Your task to perform on an android device: Go to CNN.com Image 0: 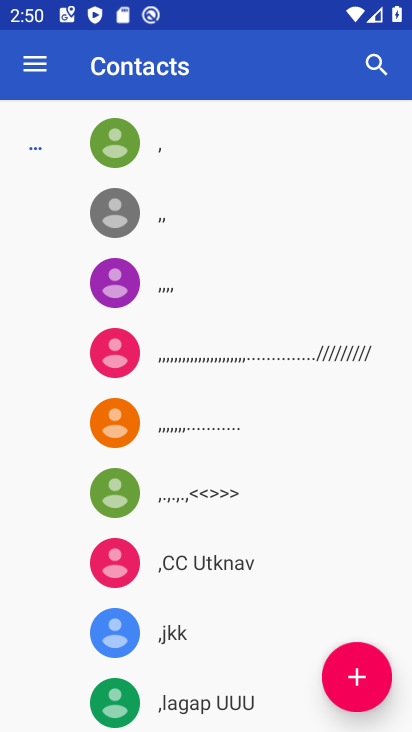
Step 0: press home button
Your task to perform on an android device: Go to CNN.com Image 1: 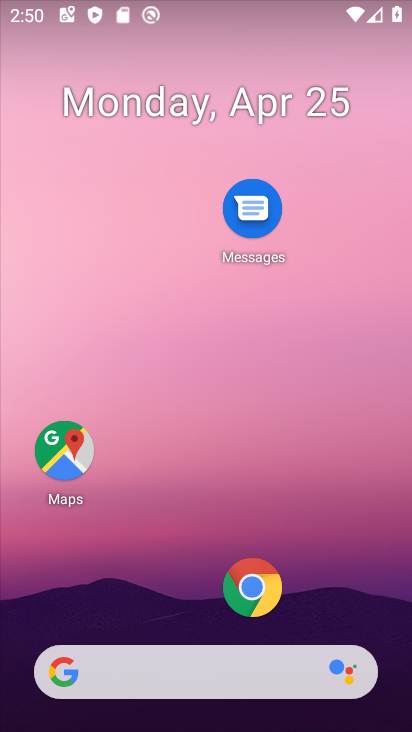
Step 1: click (254, 594)
Your task to perform on an android device: Go to CNN.com Image 2: 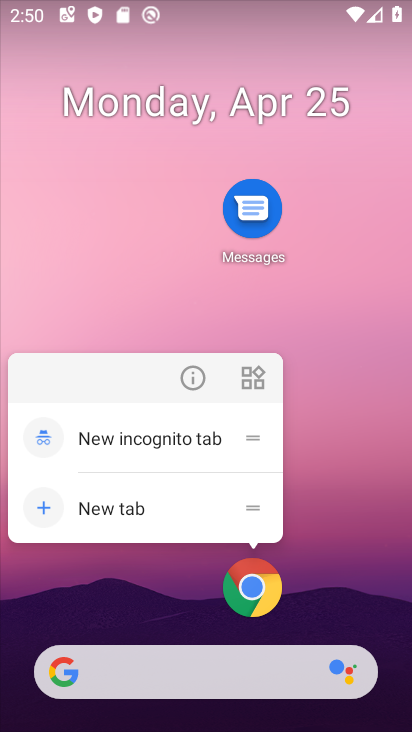
Step 2: click (191, 383)
Your task to perform on an android device: Go to CNN.com Image 3: 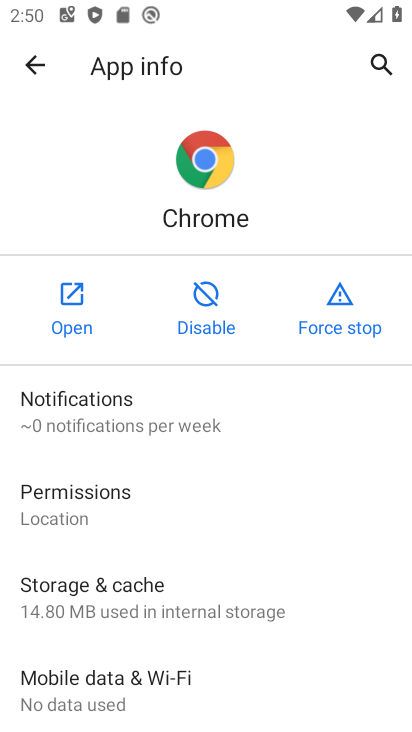
Step 3: click (76, 306)
Your task to perform on an android device: Go to CNN.com Image 4: 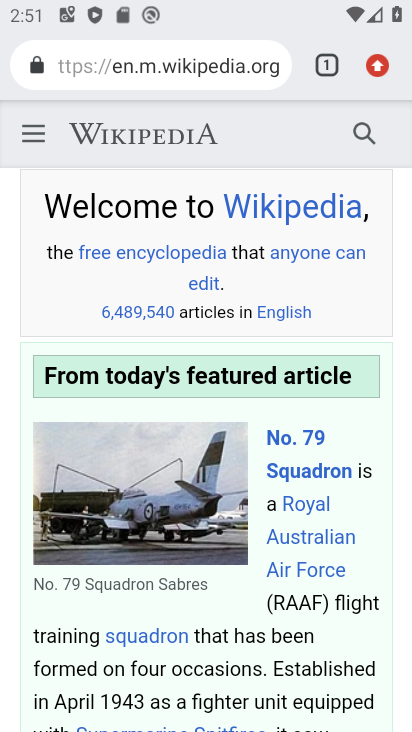
Step 4: click (261, 63)
Your task to perform on an android device: Go to CNN.com Image 5: 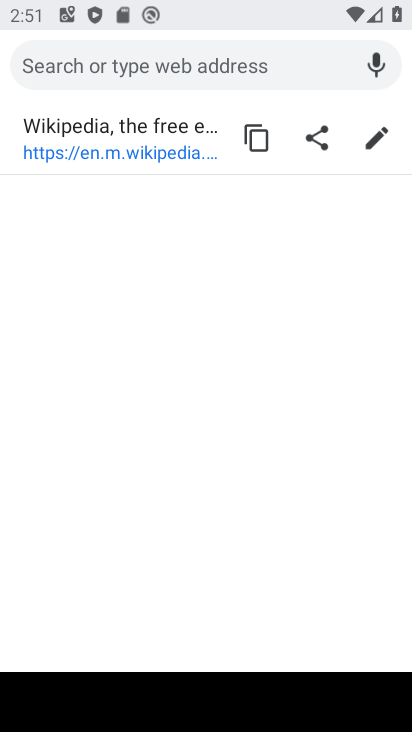
Step 5: type "CNN.com"
Your task to perform on an android device: Go to CNN.com Image 6: 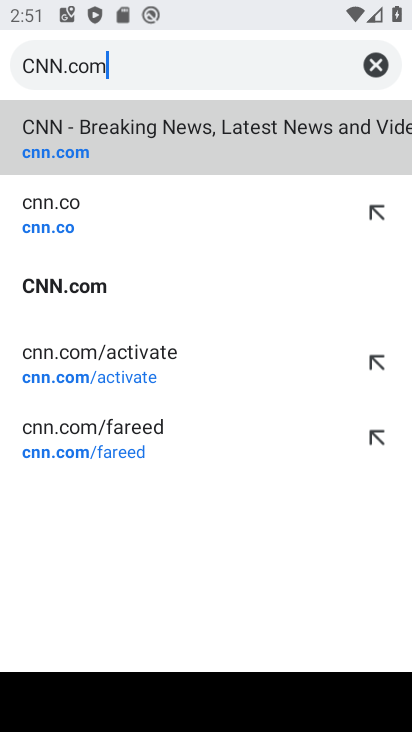
Step 6: type ""
Your task to perform on an android device: Go to CNN.com Image 7: 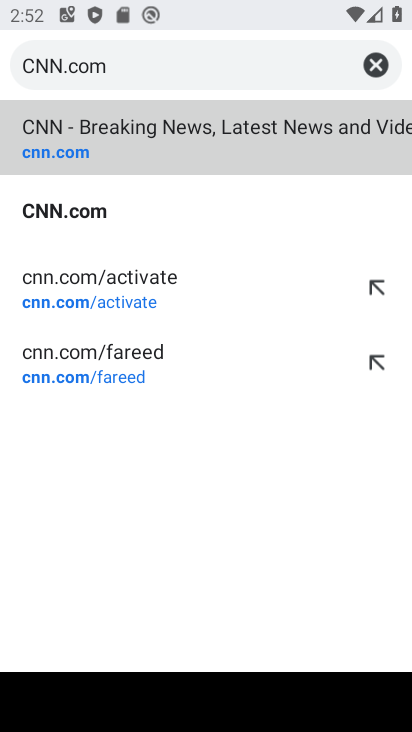
Step 7: click (103, 158)
Your task to perform on an android device: Go to CNN.com Image 8: 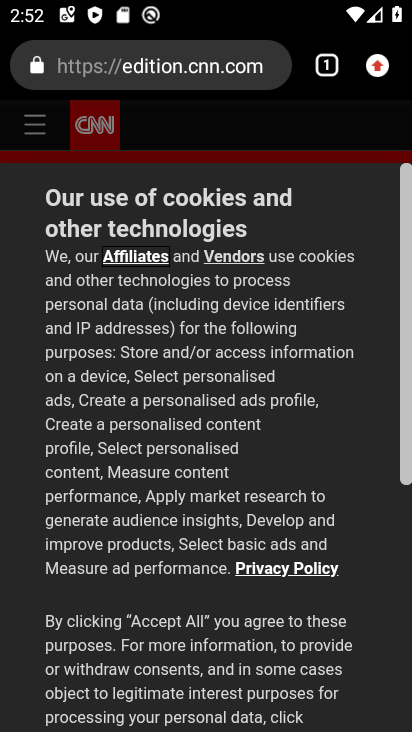
Step 8: task complete